Your task to perform on an android device: turn on translation in the chrome app Image 0: 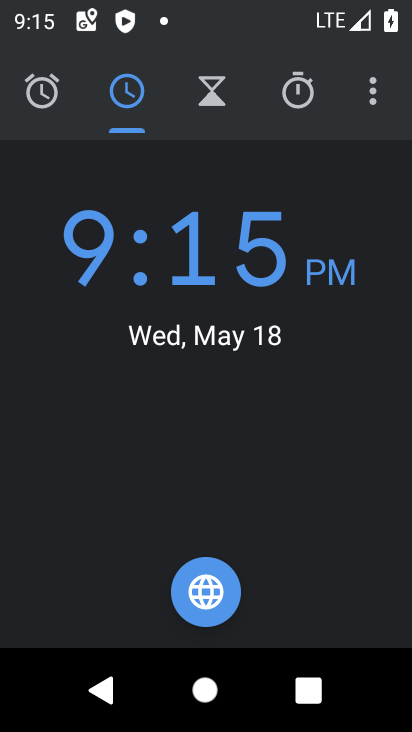
Step 0: press home button
Your task to perform on an android device: turn on translation in the chrome app Image 1: 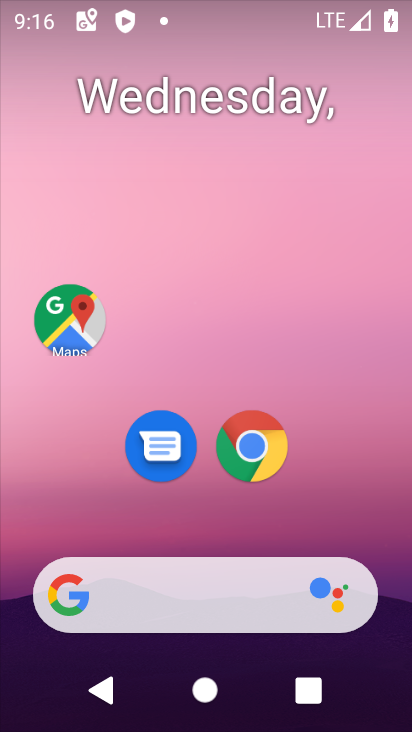
Step 1: click (253, 438)
Your task to perform on an android device: turn on translation in the chrome app Image 2: 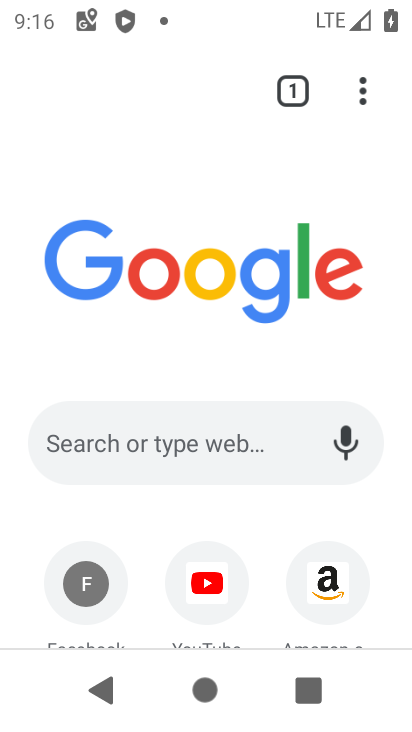
Step 2: drag from (361, 89) to (281, 478)
Your task to perform on an android device: turn on translation in the chrome app Image 3: 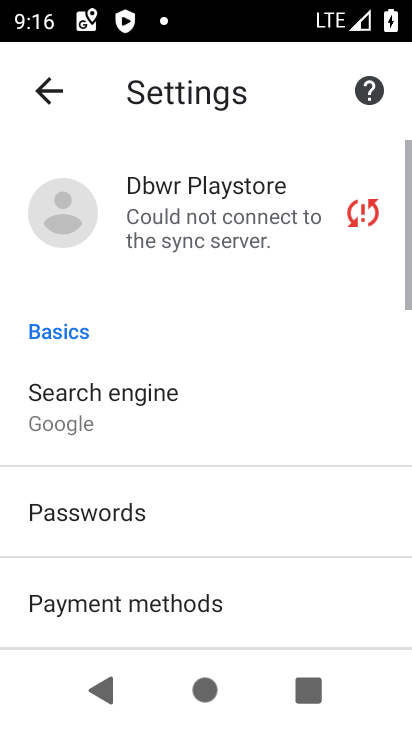
Step 3: drag from (263, 606) to (332, 60)
Your task to perform on an android device: turn on translation in the chrome app Image 4: 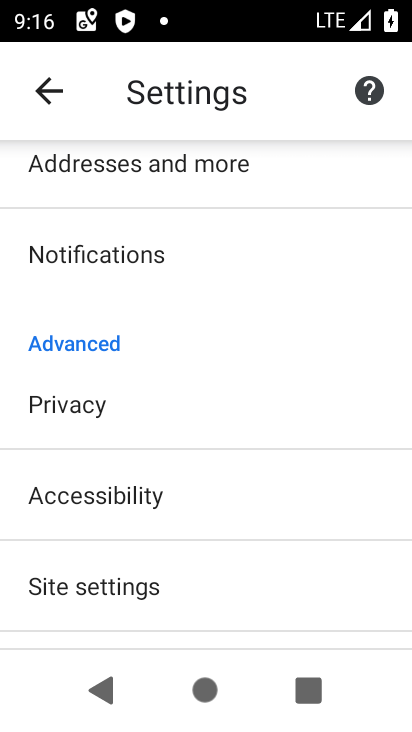
Step 4: drag from (212, 556) to (298, 323)
Your task to perform on an android device: turn on translation in the chrome app Image 5: 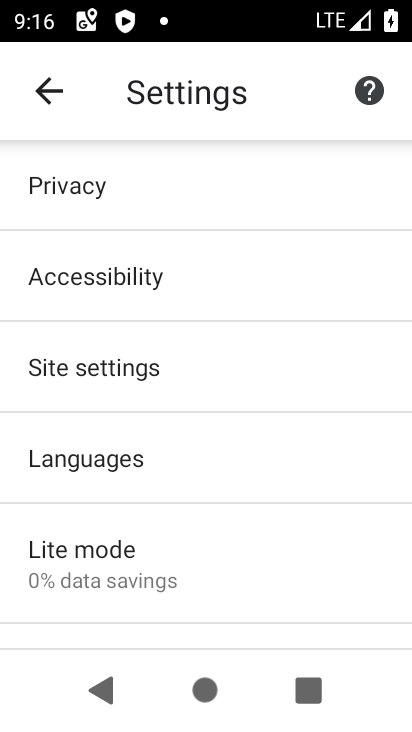
Step 5: click (146, 459)
Your task to perform on an android device: turn on translation in the chrome app Image 6: 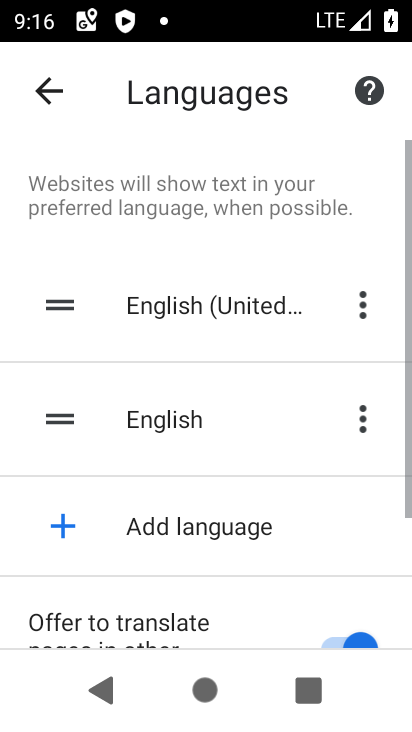
Step 6: task complete